Your task to perform on an android device: snooze an email in the gmail app Image 0: 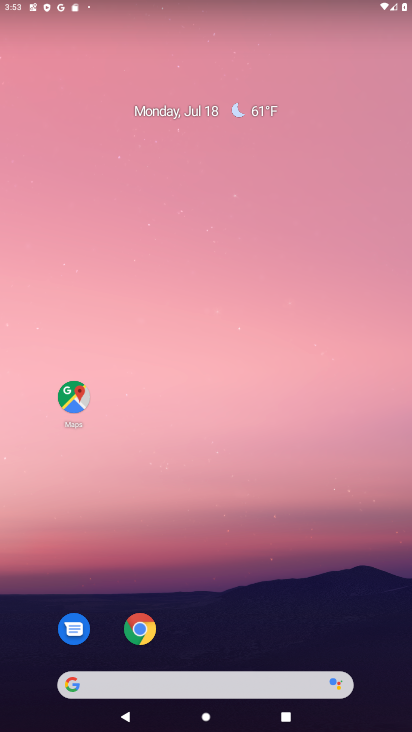
Step 0: drag from (223, 666) to (224, 72)
Your task to perform on an android device: snooze an email in the gmail app Image 1: 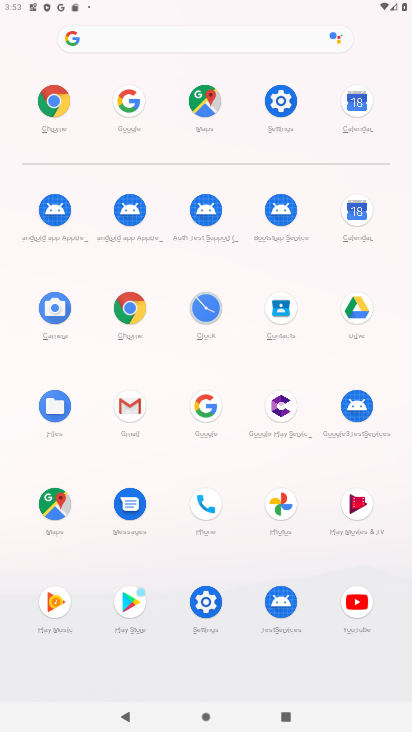
Step 1: click (127, 409)
Your task to perform on an android device: snooze an email in the gmail app Image 2: 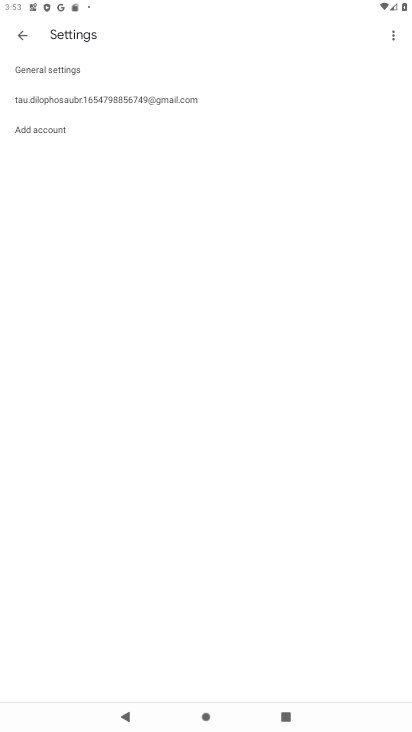
Step 2: click (16, 33)
Your task to perform on an android device: snooze an email in the gmail app Image 3: 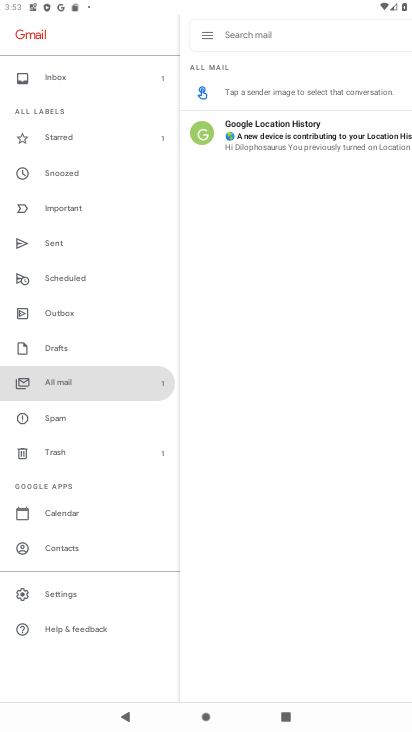
Step 3: click (271, 129)
Your task to perform on an android device: snooze an email in the gmail app Image 4: 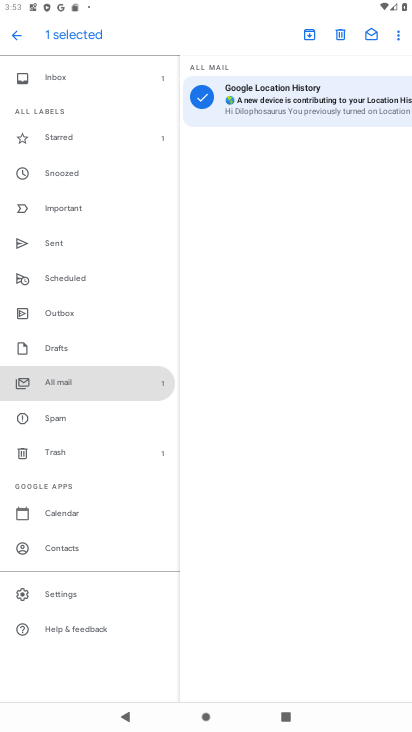
Step 4: click (393, 36)
Your task to perform on an android device: snooze an email in the gmail app Image 5: 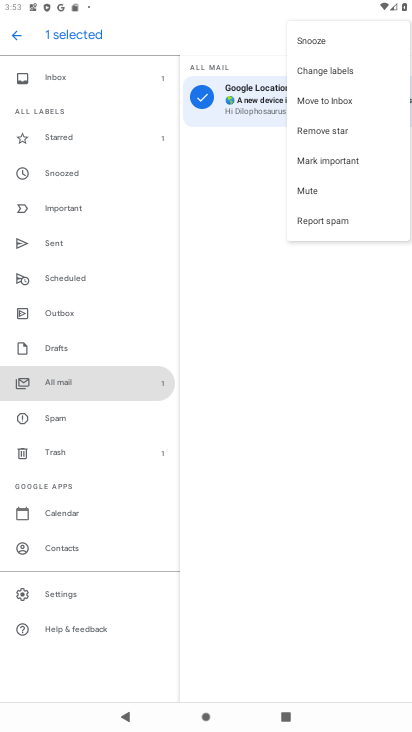
Step 5: click (313, 37)
Your task to perform on an android device: snooze an email in the gmail app Image 6: 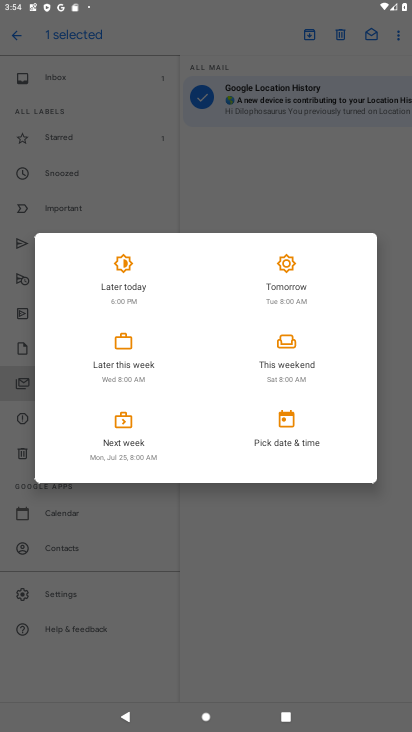
Step 6: click (280, 279)
Your task to perform on an android device: snooze an email in the gmail app Image 7: 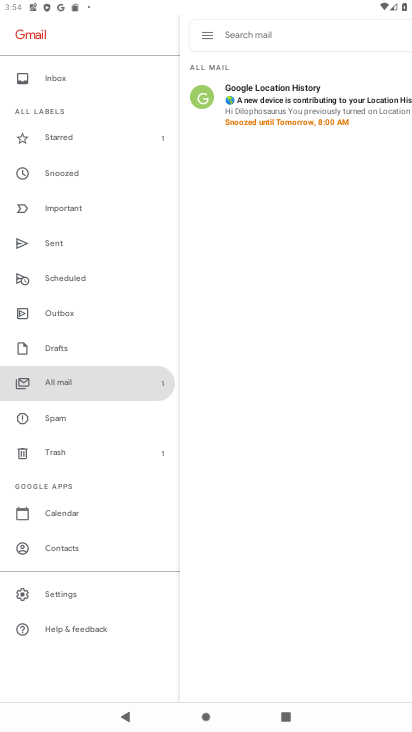
Step 7: task complete